Your task to perform on an android device: Open calendar and show me the second week of next month Image 0: 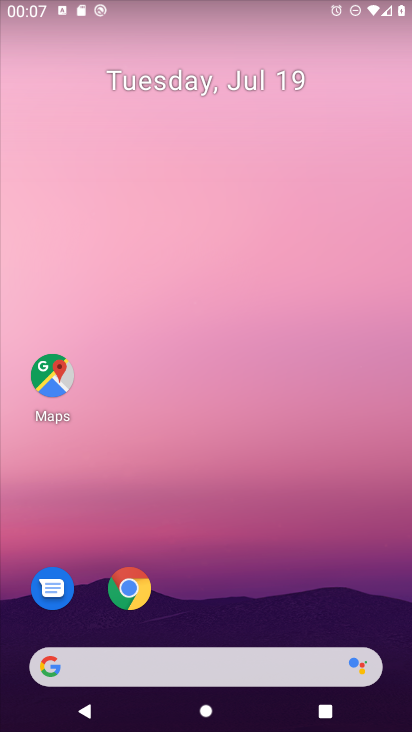
Step 0: drag from (401, 628) to (335, 159)
Your task to perform on an android device: Open calendar and show me the second week of next month Image 1: 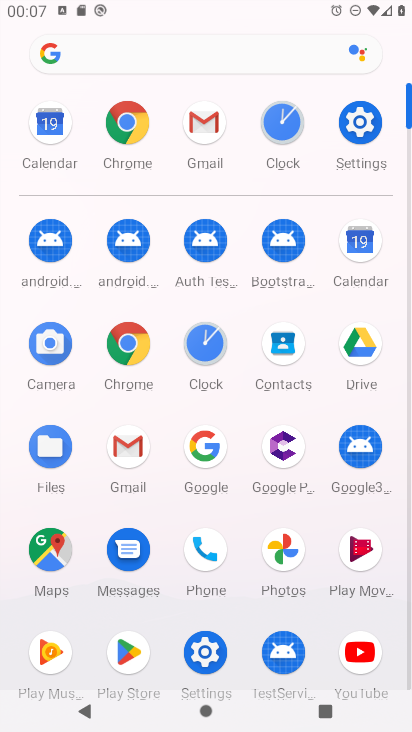
Step 1: click (360, 239)
Your task to perform on an android device: Open calendar and show me the second week of next month Image 2: 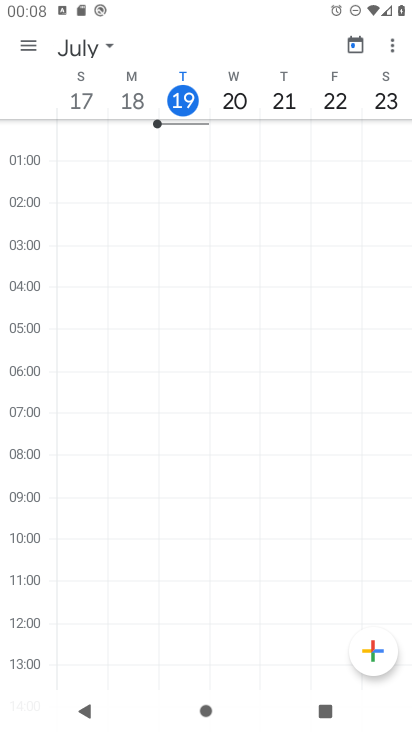
Step 2: click (31, 43)
Your task to perform on an android device: Open calendar and show me the second week of next month Image 3: 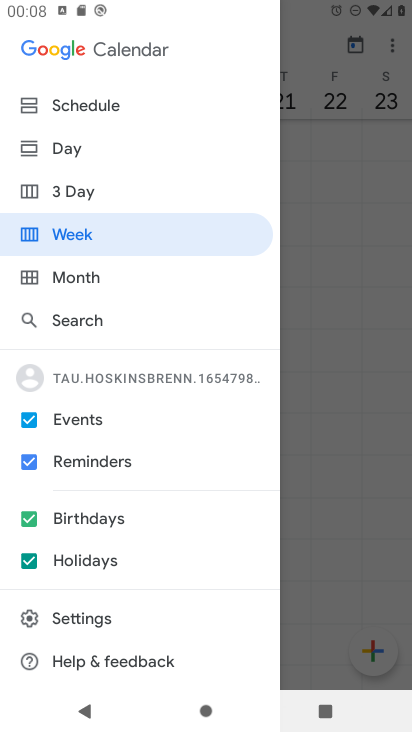
Step 3: click (153, 230)
Your task to perform on an android device: Open calendar and show me the second week of next month Image 4: 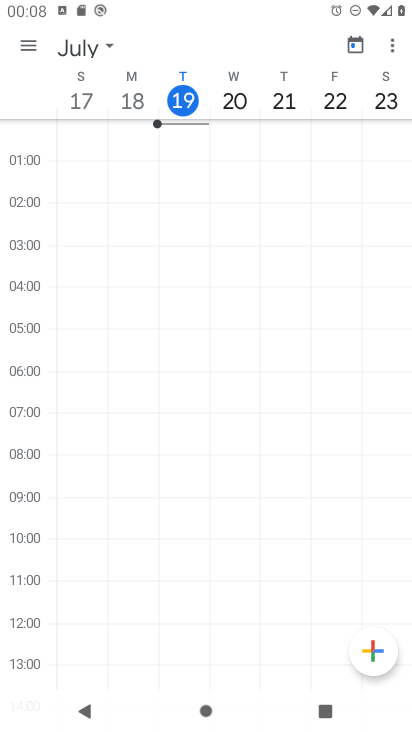
Step 4: click (112, 44)
Your task to perform on an android device: Open calendar and show me the second week of next month Image 5: 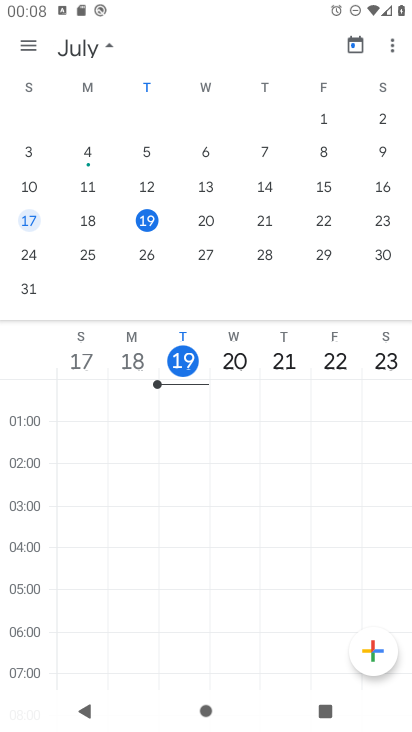
Step 5: drag from (385, 219) to (60, 191)
Your task to perform on an android device: Open calendar and show me the second week of next month Image 6: 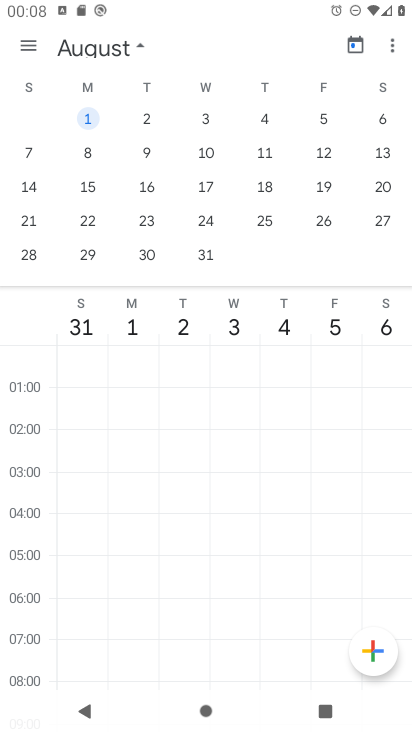
Step 6: click (30, 191)
Your task to perform on an android device: Open calendar and show me the second week of next month Image 7: 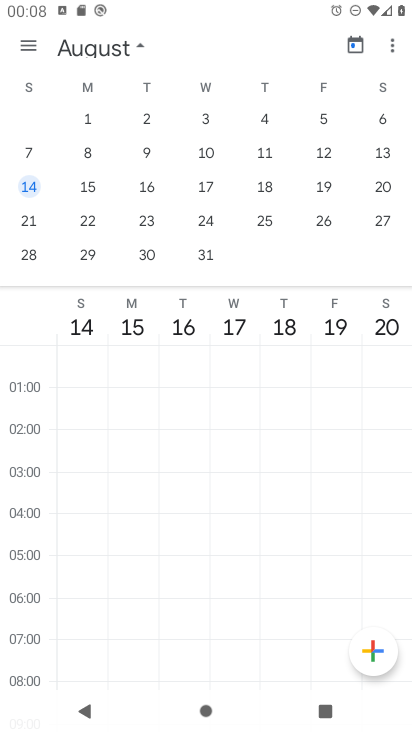
Step 7: task complete